Your task to perform on an android device: turn off data saver in the chrome app Image 0: 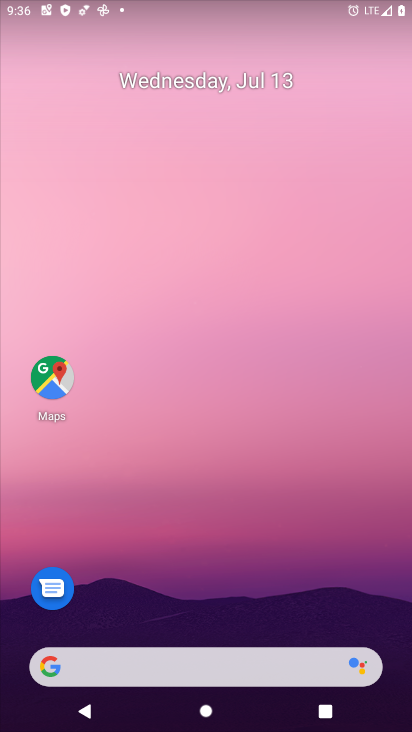
Step 0: drag from (139, 694) to (147, 65)
Your task to perform on an android device: turn off data saver in the chrome app Image 1: 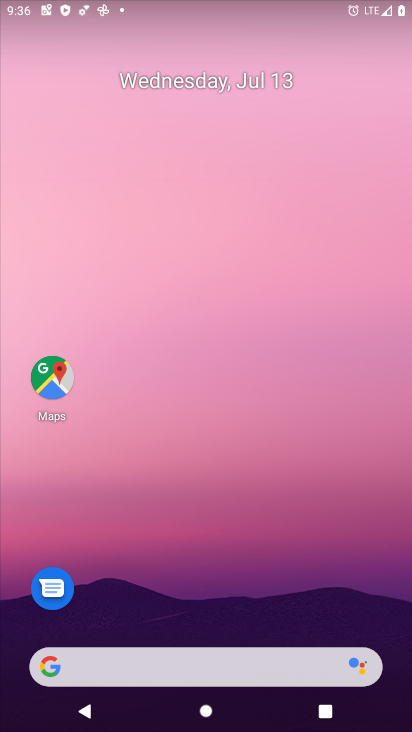
Step 1: drag from (151, 715) to (223, 6)
Your task to perform on an android device: turn off data saver in the chrome app Image 2: 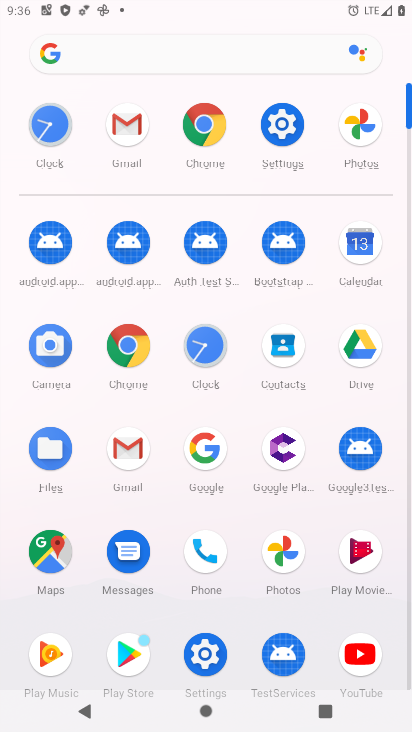
Step 2: click (214, 129)
Your task to perform on an android device: turn off data saver in the chrome app Image 3: 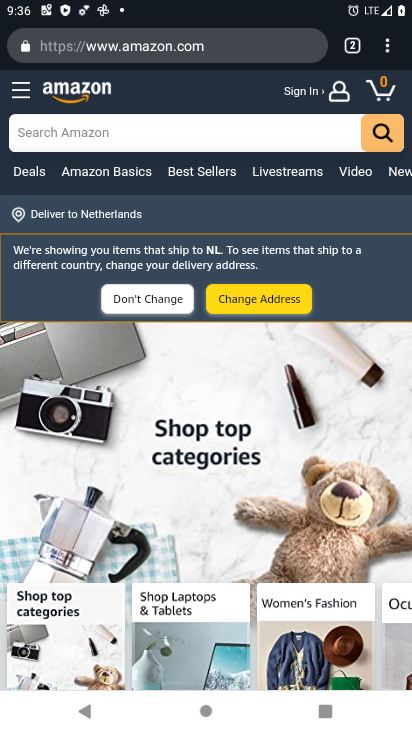
Step 3: click (391, 45)
Your task to perform on an android device: turn off data saver in the chrome app Image 4: 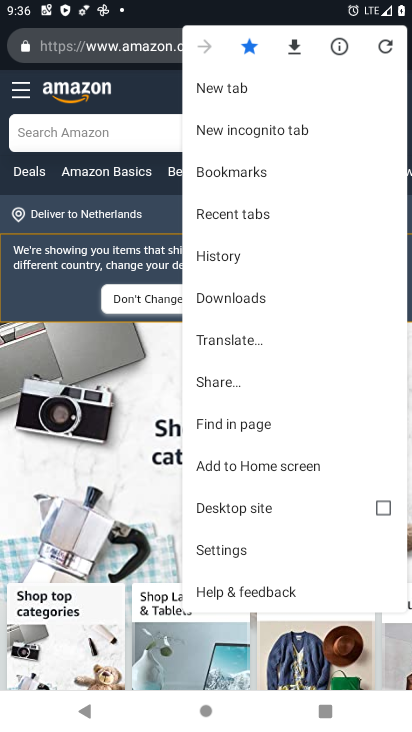
Step 4: click (290, 548)
Your task to perform on an android device: turn off data saver in the chrome app Image 5: 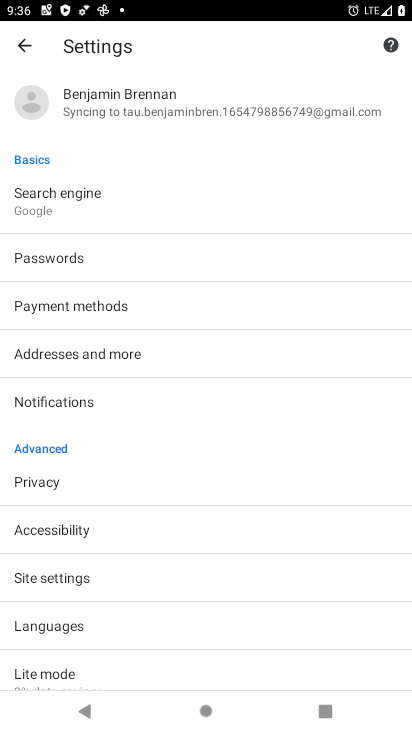
Step 5: click (40, 680)
Your task to perform on an android device: turn off data saver in the chrome app Image 6: 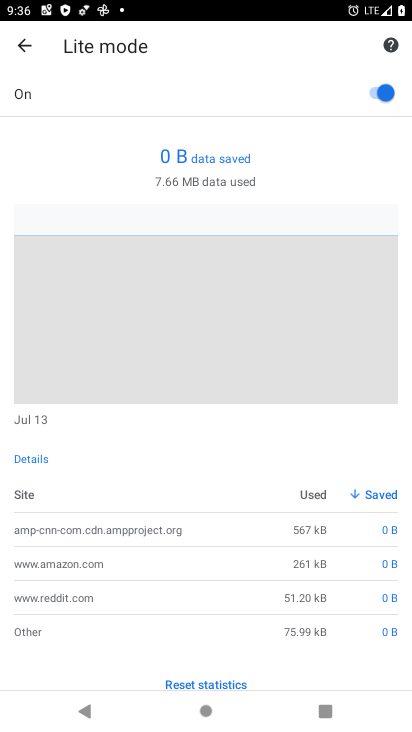
Step 6: click (369, 91)
Your task to perform on an android device: turn off data saver in the chrome app Image 7: 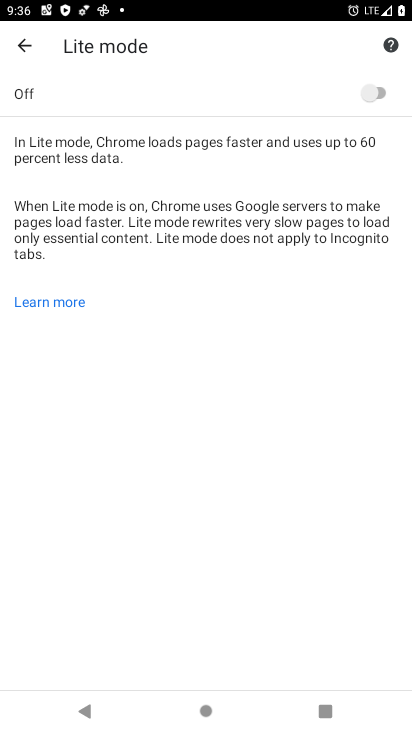
Step 7: task complete